Your task to perform on an android device: Show me the alarms in the clock app Image 0: 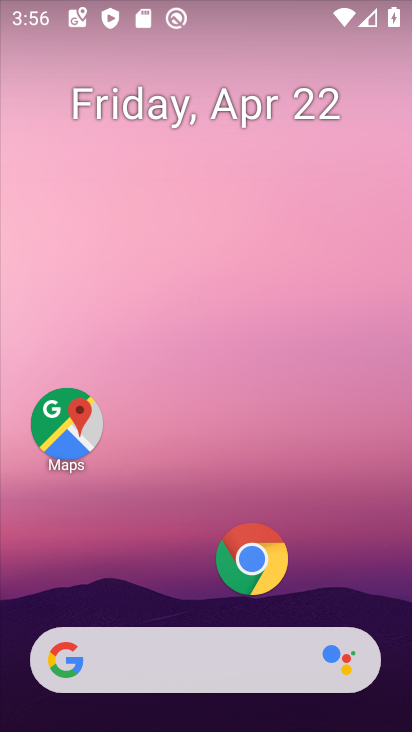
Step 0: drag from (173, 599) to (231, 131)
Your task to perform on an android device: Show me the alarms in the clock app Image 1: 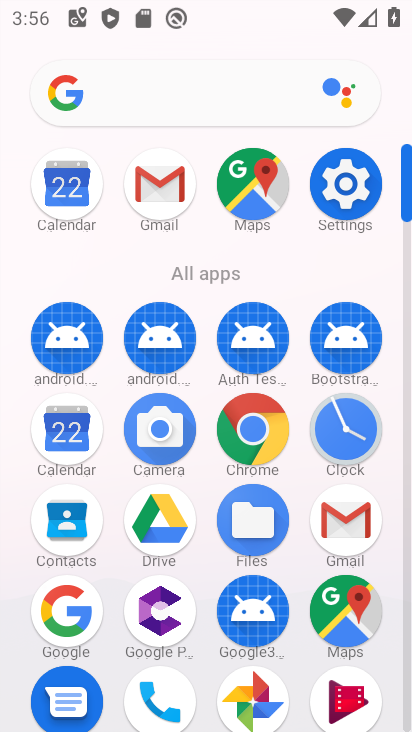
Step 1: click (347, 431)
Your task to perform on an android device: Show me the alarms in the clock app Image 2: 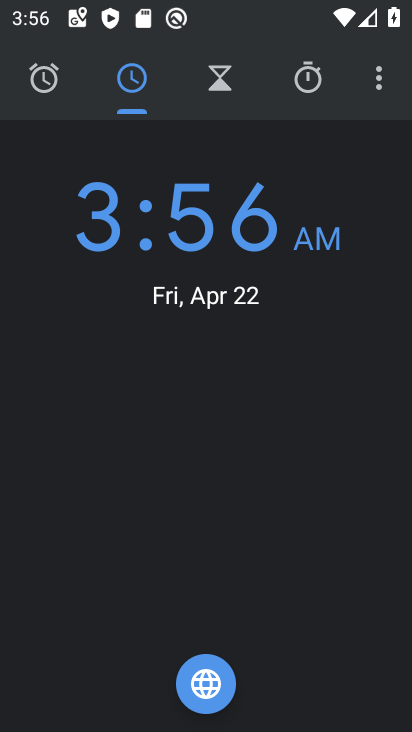
Step 2: click (43, 87)
Your task to perform on an android device: Show me the alarms in the clock app Image 3: 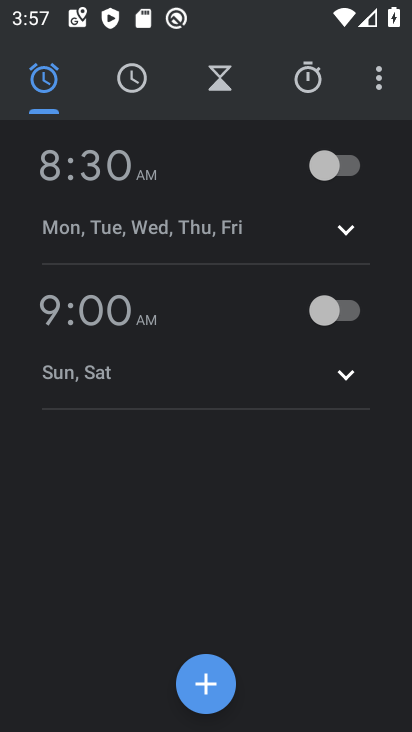
Step 3: task complete